Your task to perform on an android device: What's on my calendar today? Image 0: 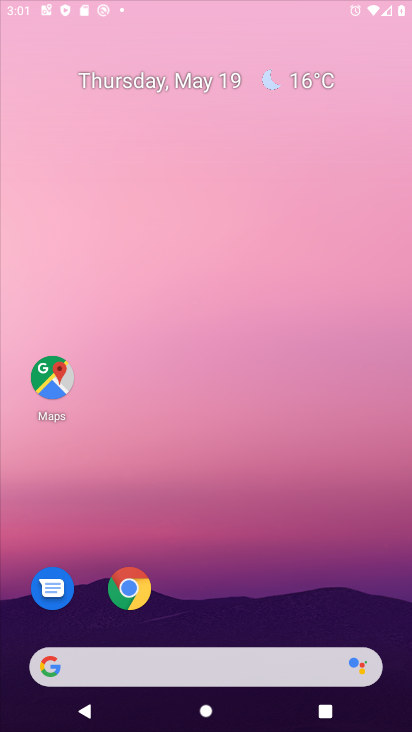
Step 0: drag from (273, 587) to (276, 147)
Your task to perform on an android device: What's on my calendar today? Image 1: 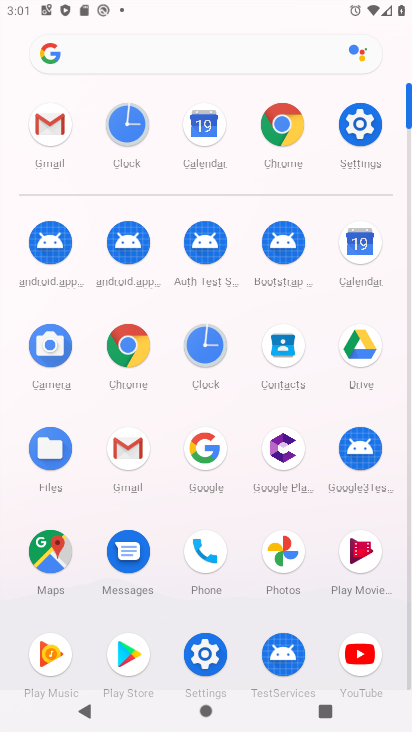
Step 1: click (355, 235)
Your task to perform on an android device: What's on my calendar today? Image 2: 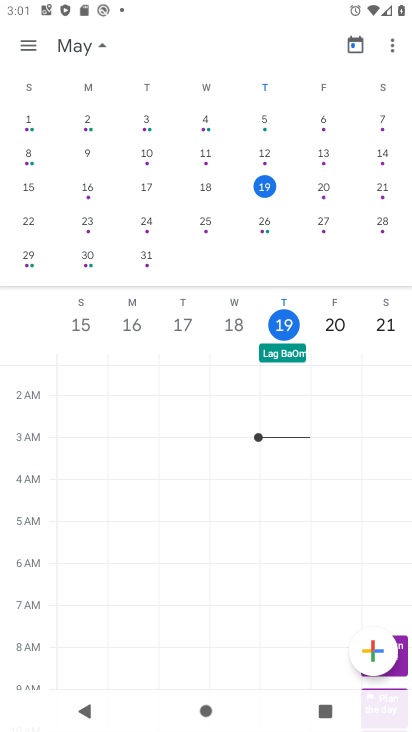
Step 2: task complete